Your task to perform on an android device: delete location history Image 0: 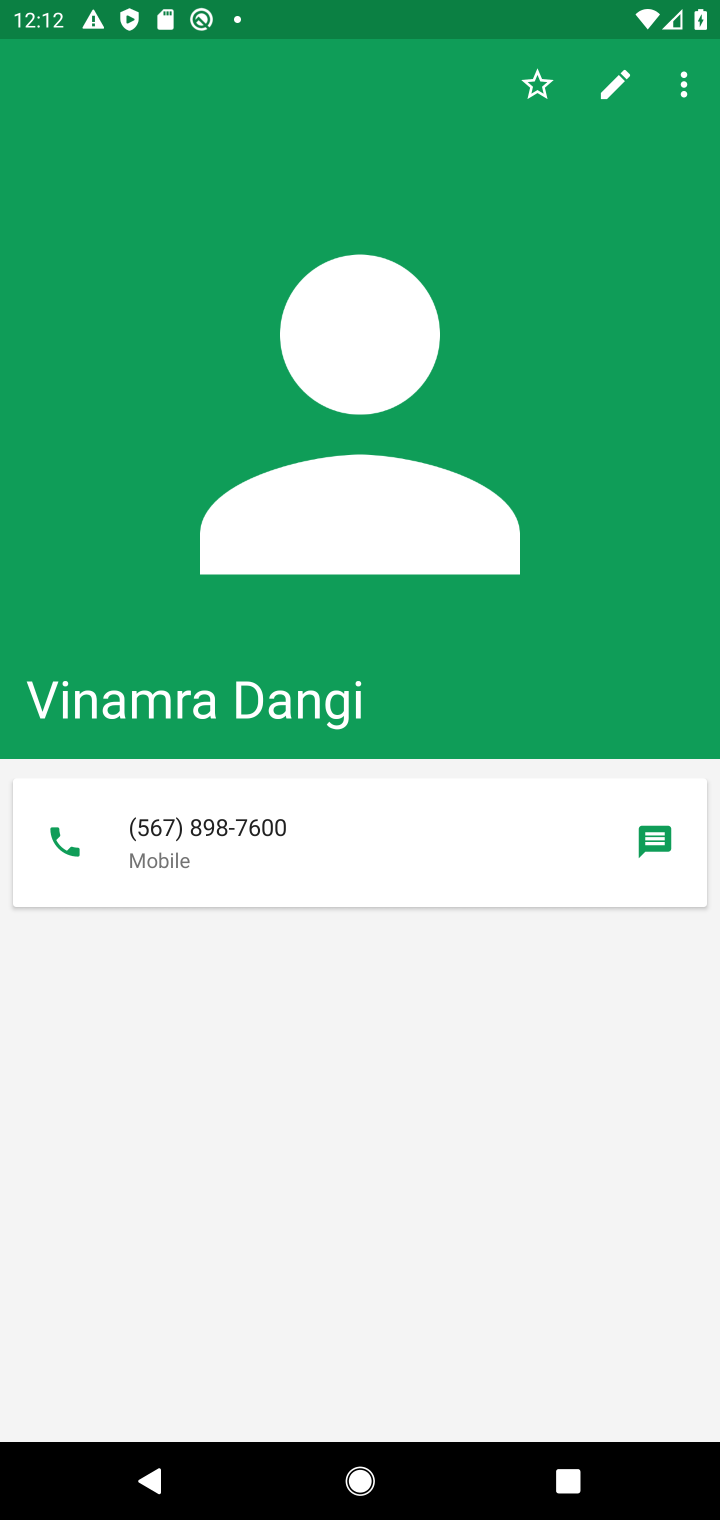
Step 0: press home button
Your task to perform on an android device: delete location history Image 1: 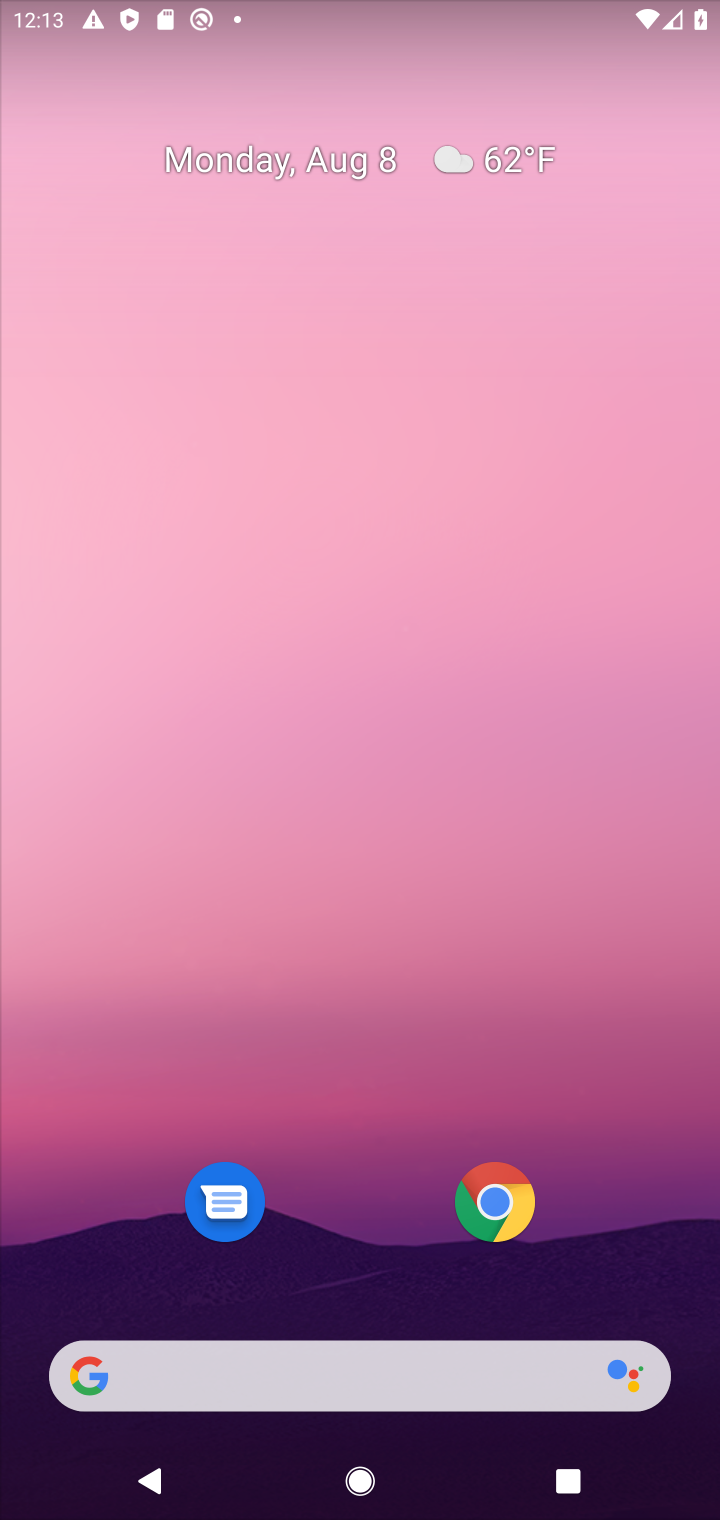
Step 1: drag from (326, 579) to (305, 75)
Your task to perform on an android device: delete location history Image 2: 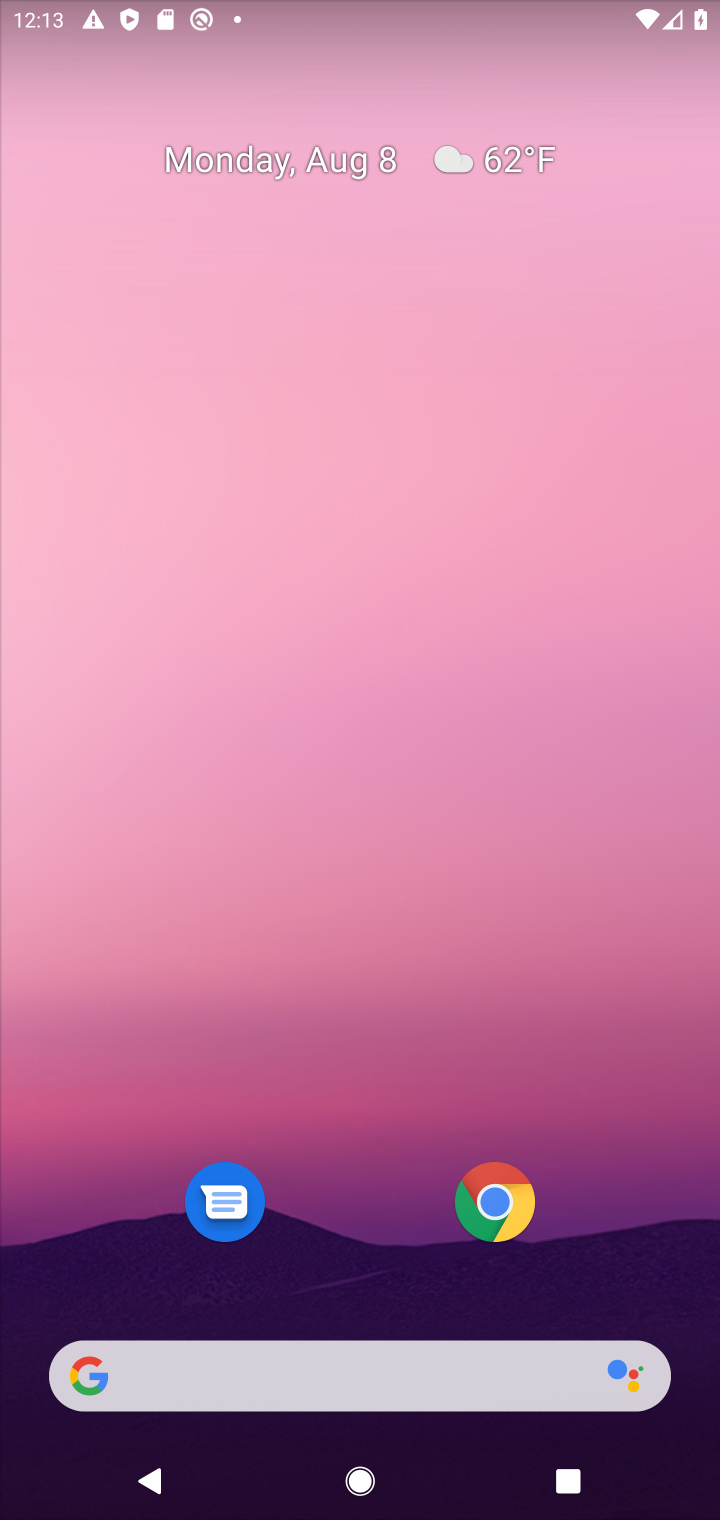
Step 2: drag from (352, 669) to (415, 199)
Your task to perform on an android device: delete location history Image 3: 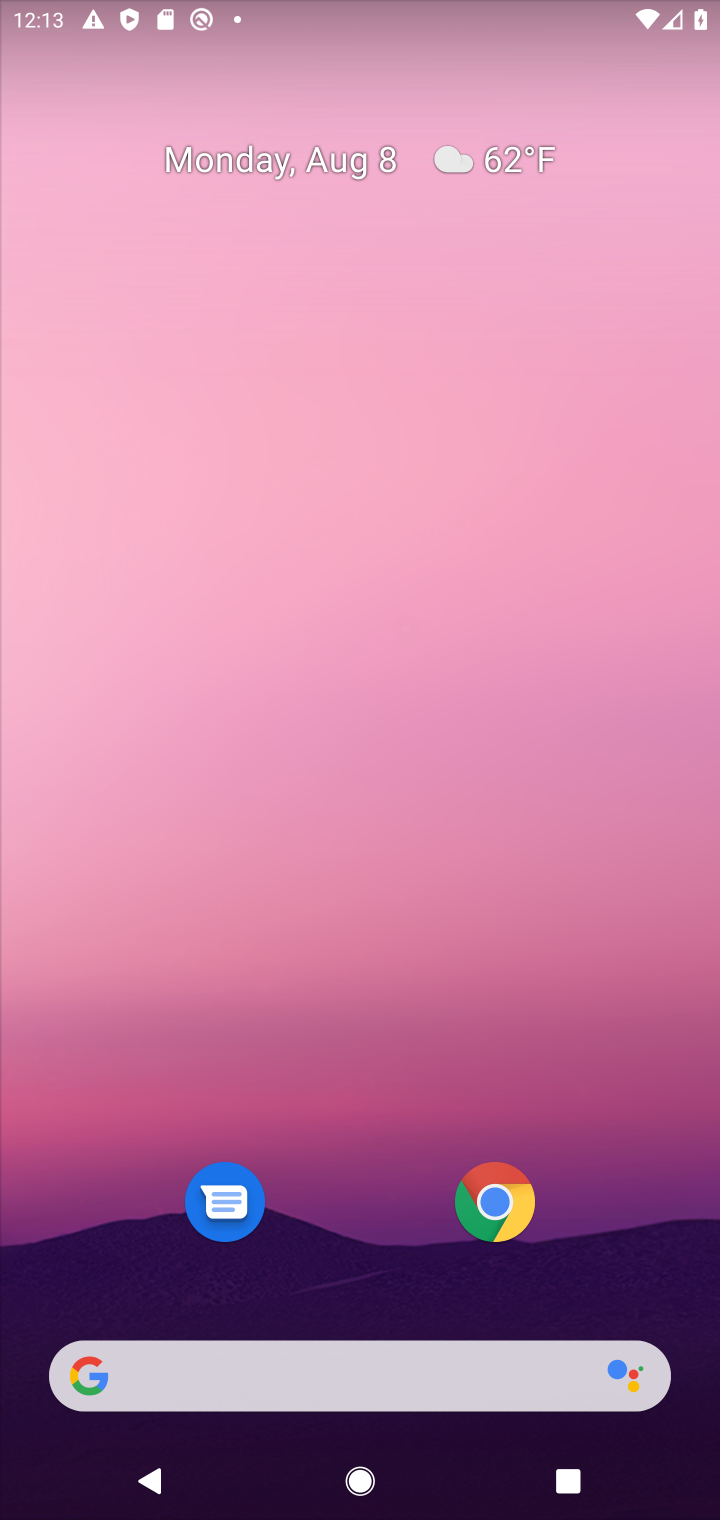
Step 3: drag from (338, 1215) to (532, 171)
Your task to perform on an android device: delete location history Image 4: 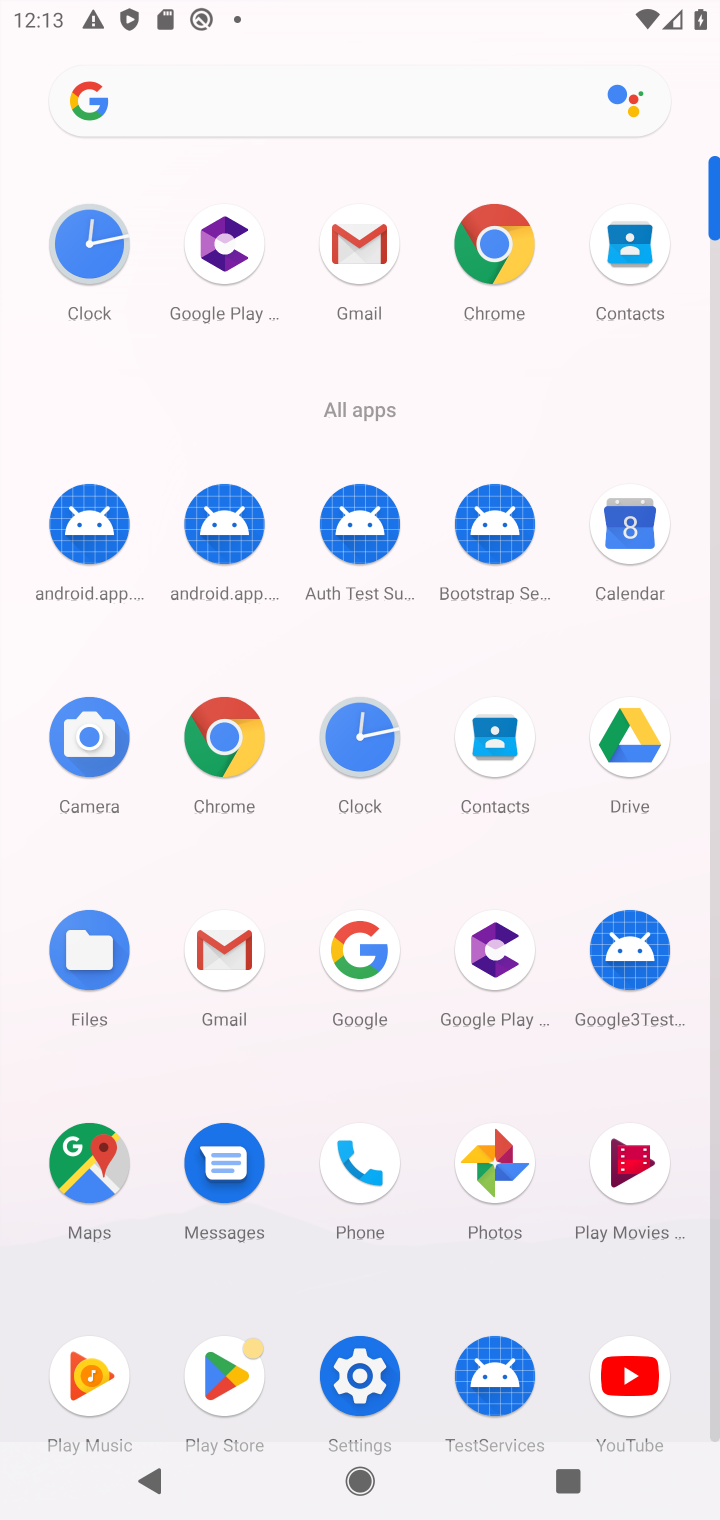
Step 4: click (361, 1378)
Your task to perform on an android device: delete location history Image 5: 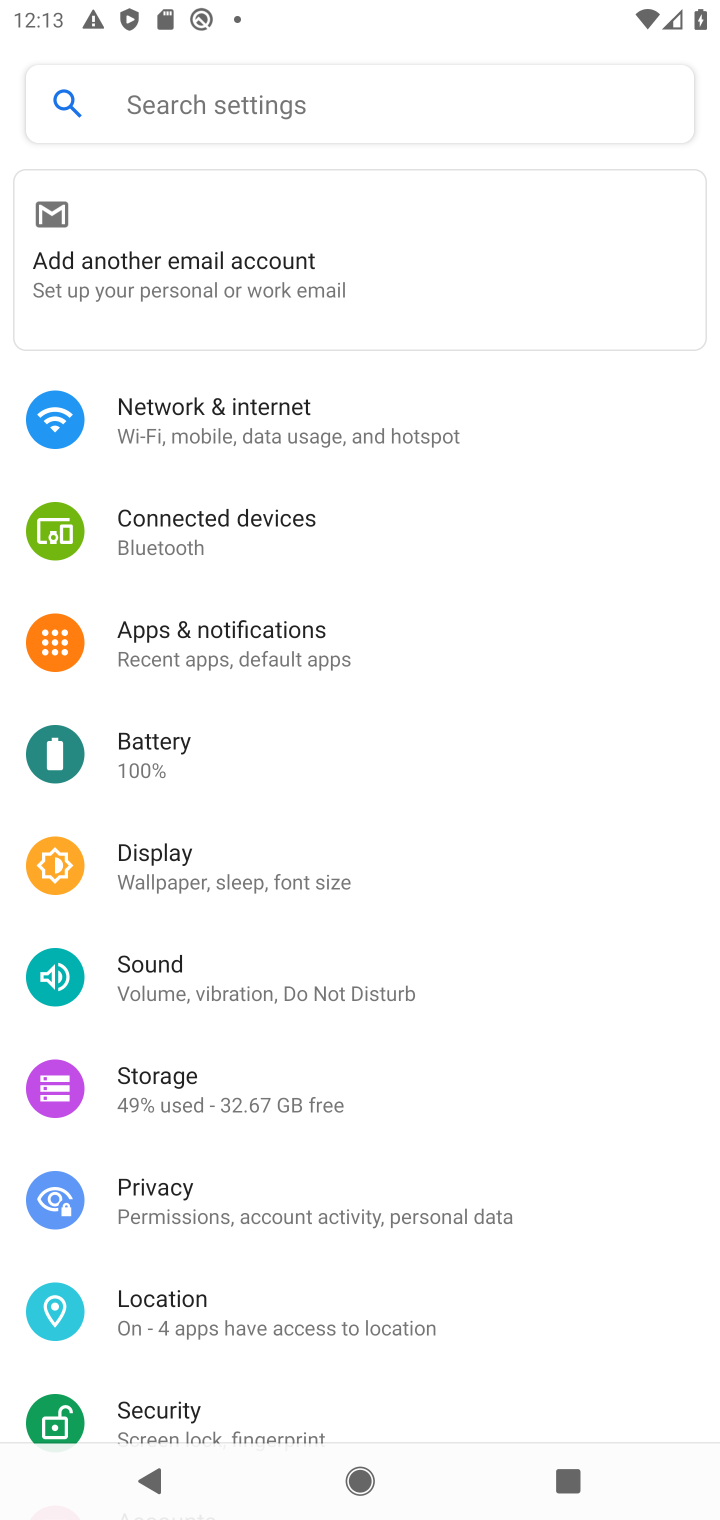
Step 5: click (182, 1334)
Your task to perform on an android device: delete location history Image 6: 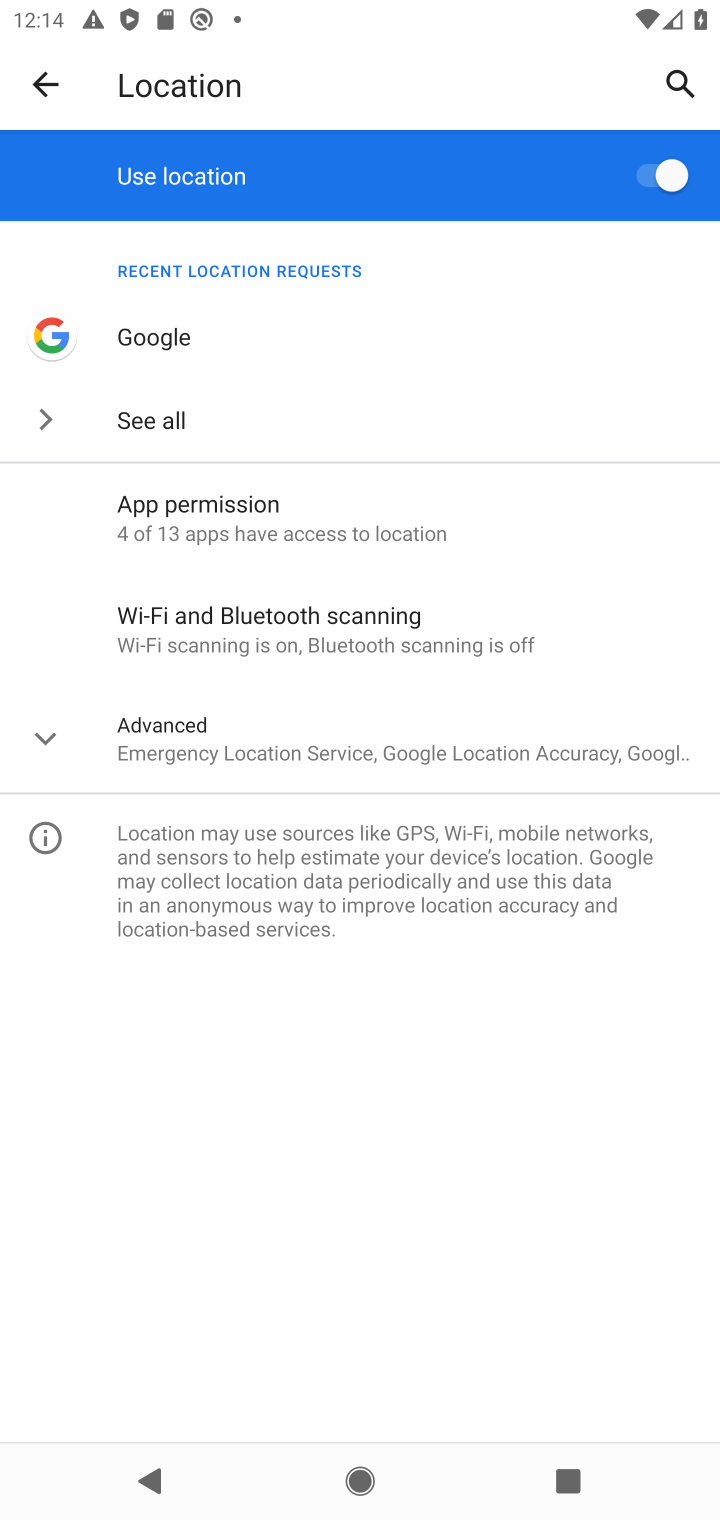
Step 6: click (214, 745)
Your task to perform on an android device: delete location history Image 7: 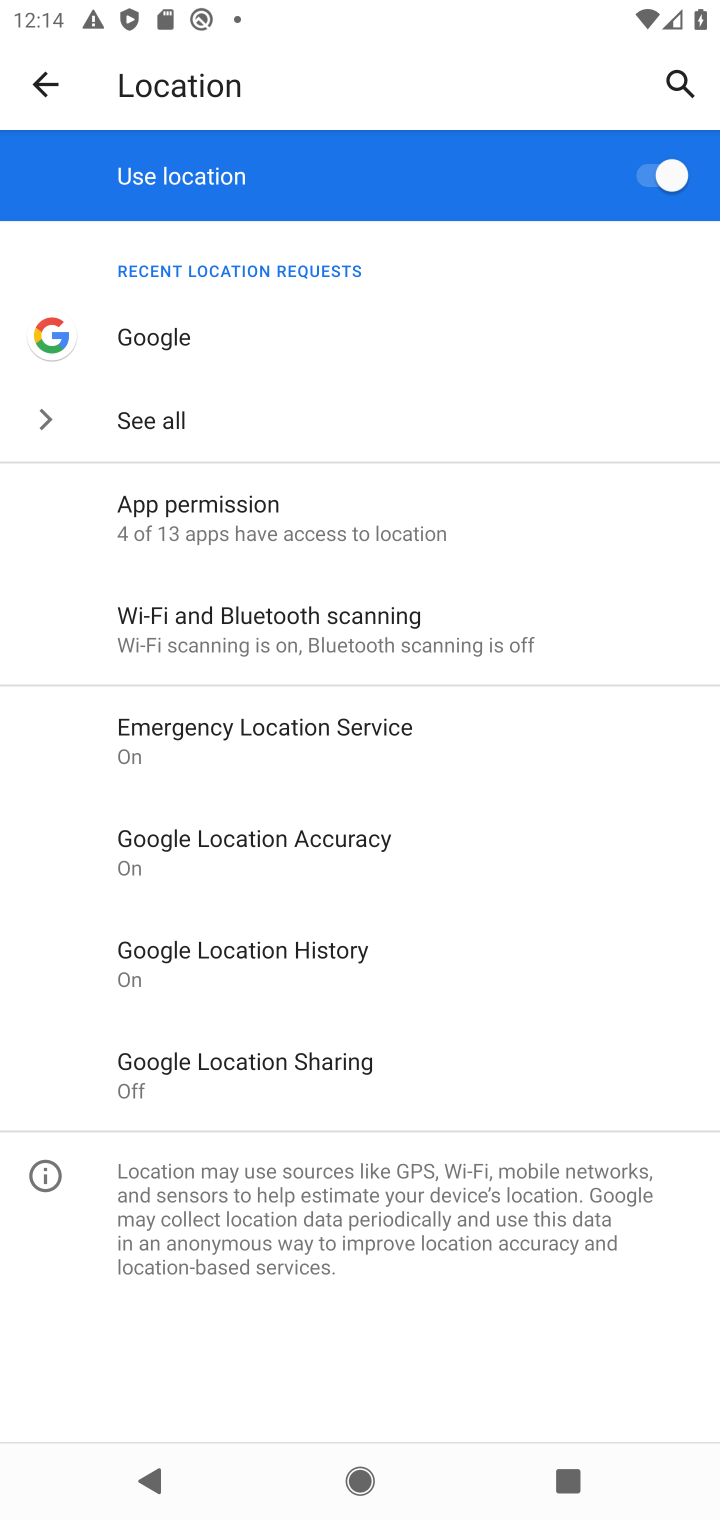
Step 7: click (200, 956)
Your task to perform on an android device: delete location history Image 8: 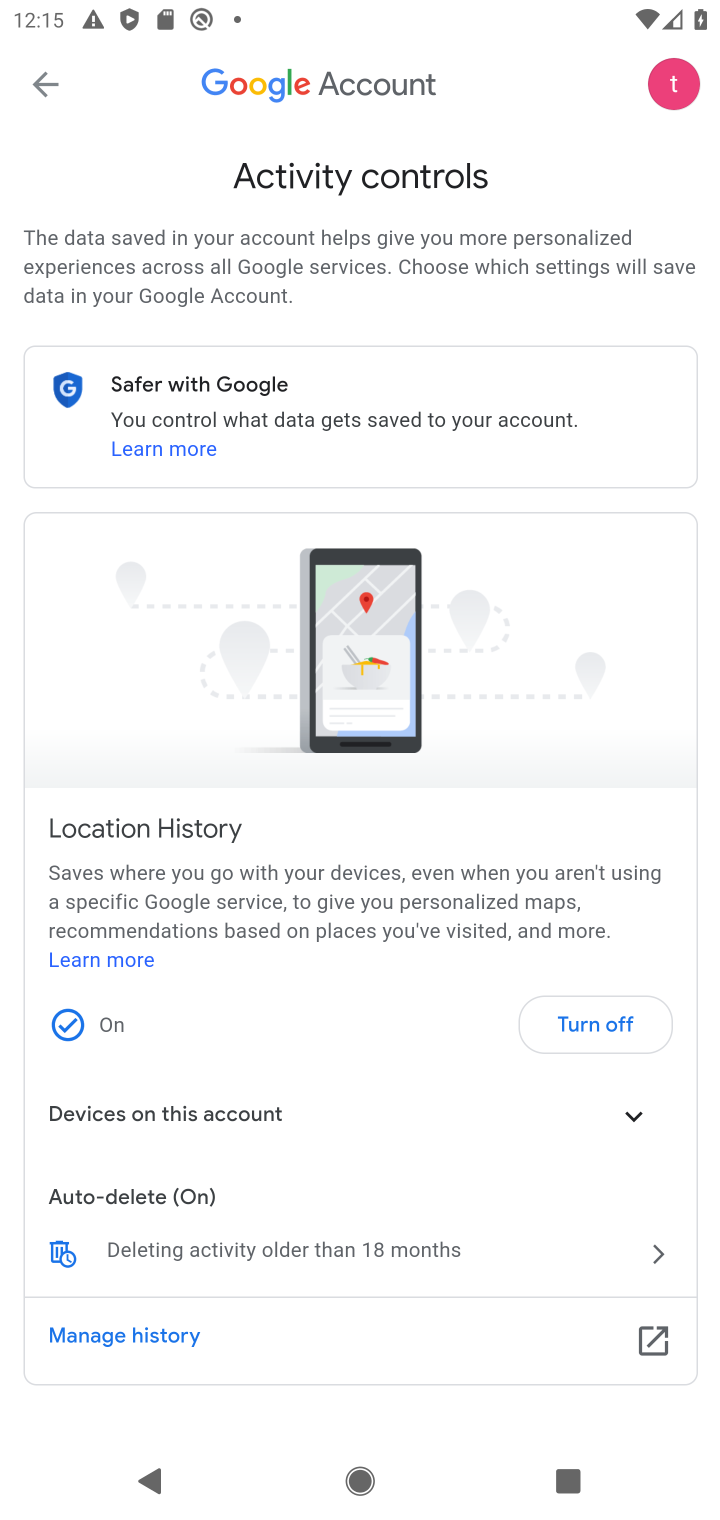
Step 8: click (159, 1321)
Your task to perform on an android device: delete location history Image 9: 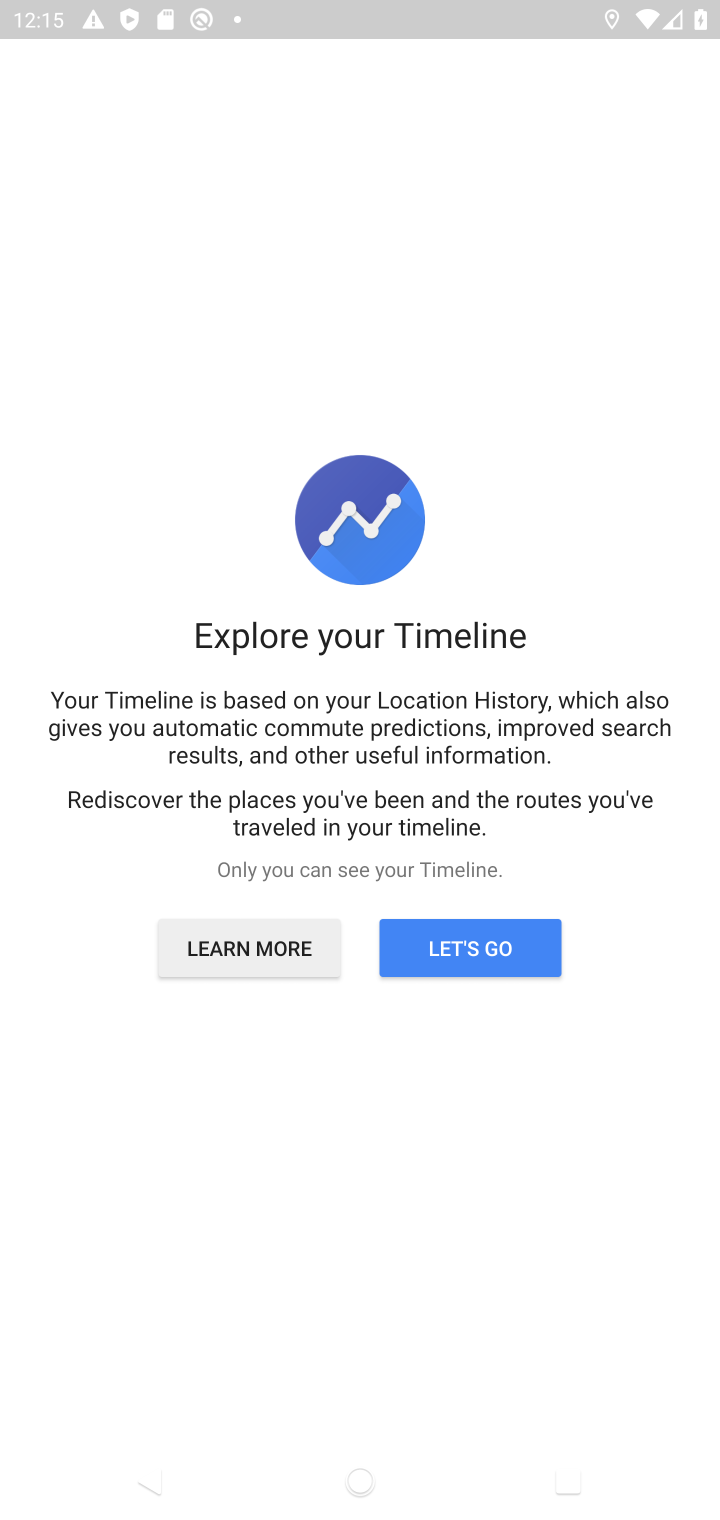
Step 9: click (487, 963)
Your task to perform on an android device: delete location history Image 10: 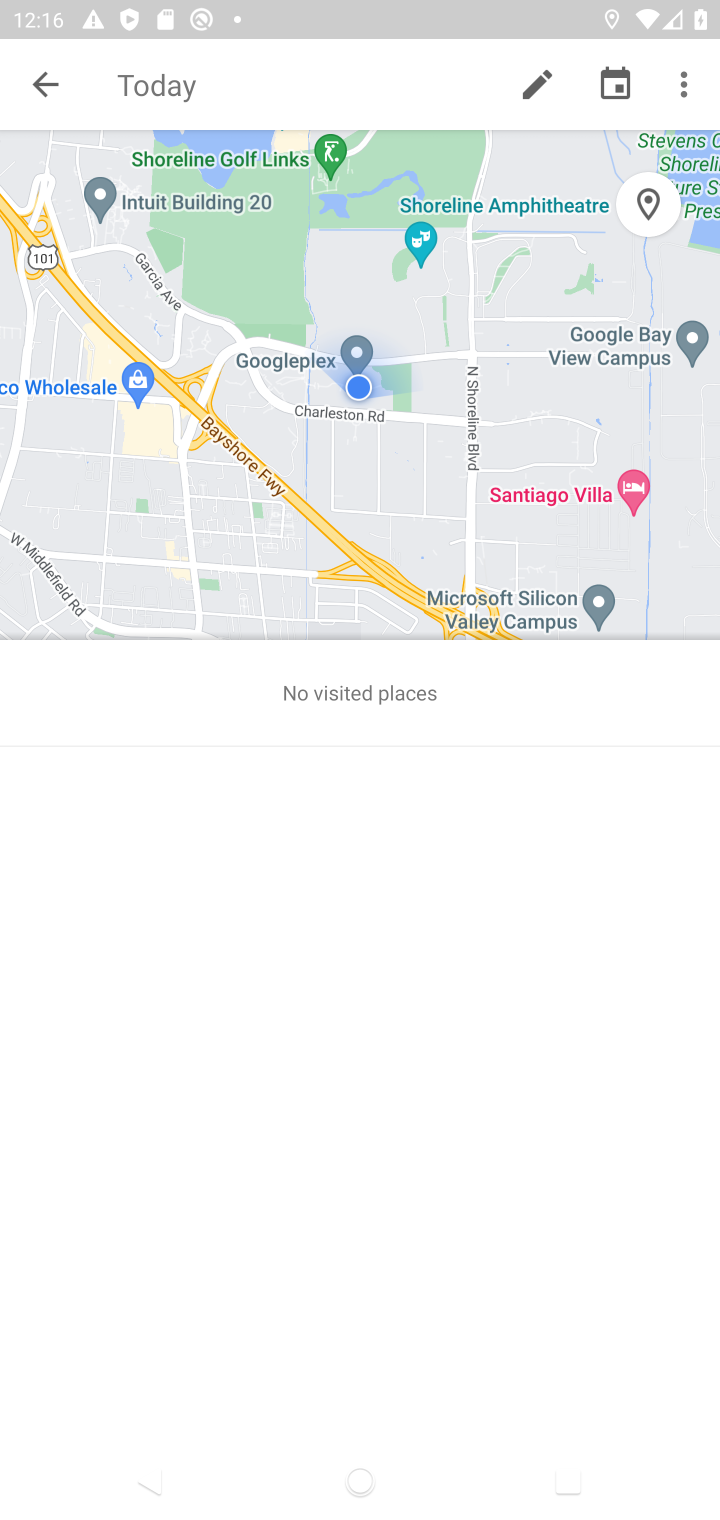
Step 10: click (686, 85)
Your task to perform on an android device: delete location history Image 11: 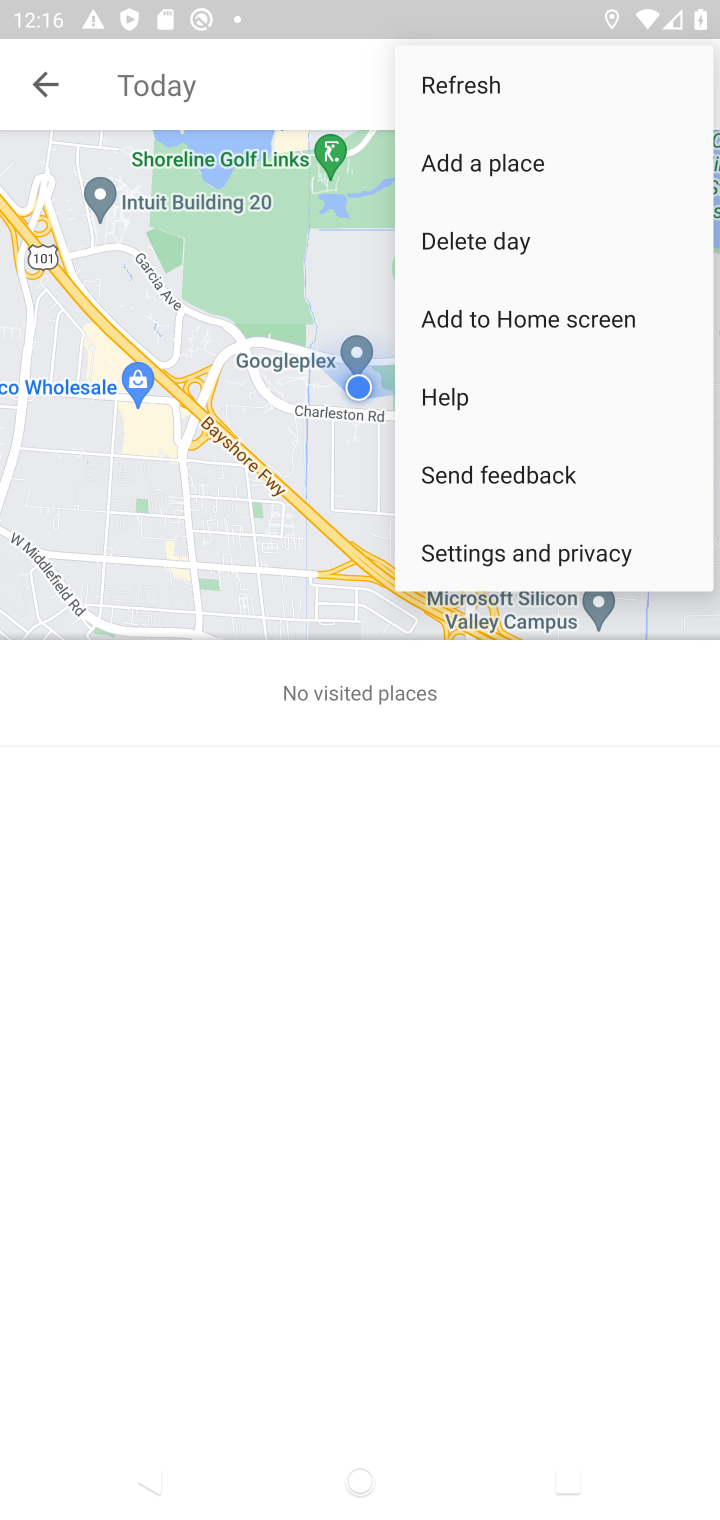
Step 11: click (488, 562)
Your task to perform on an android device: delete location history Image 12: 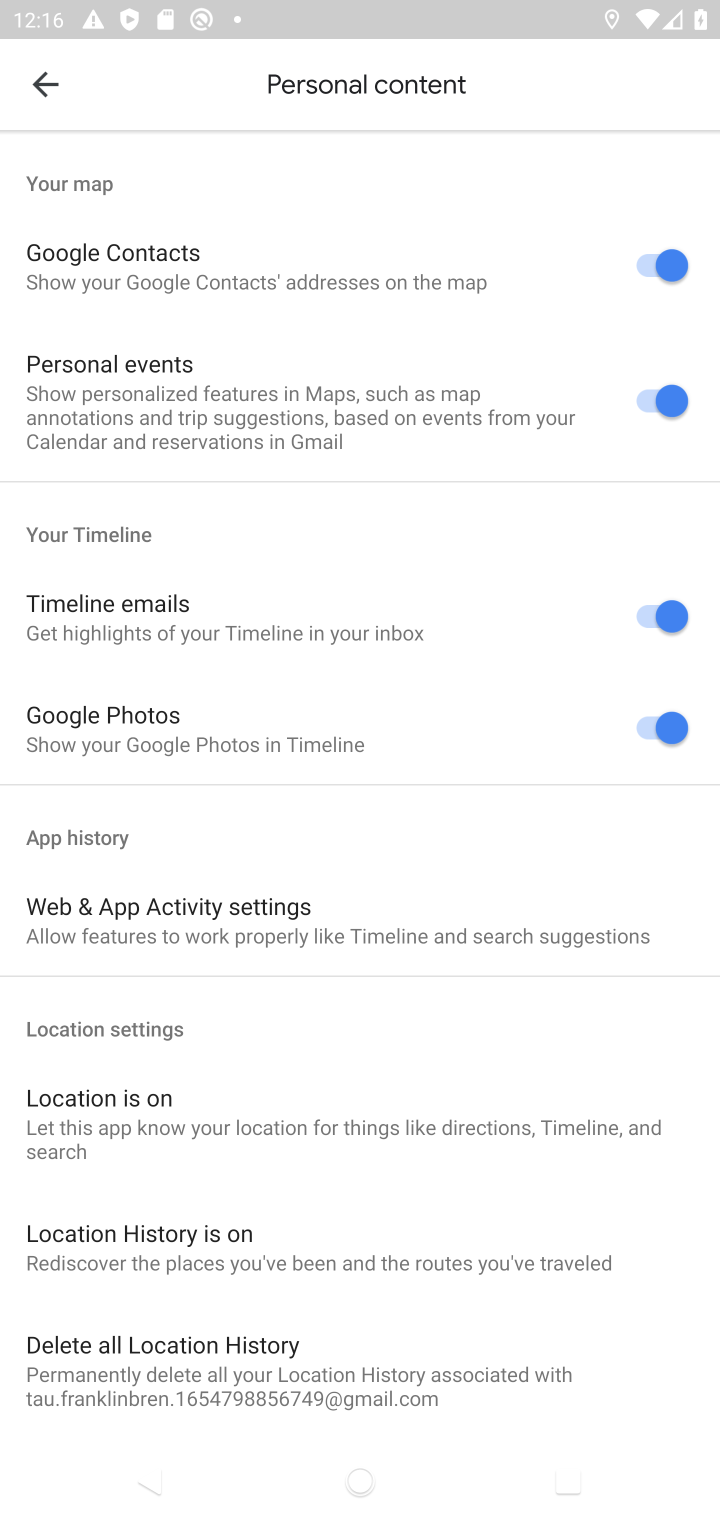
Step 12: click (201, 1402)
Your task to perform on an android device: delete location history Image 13: 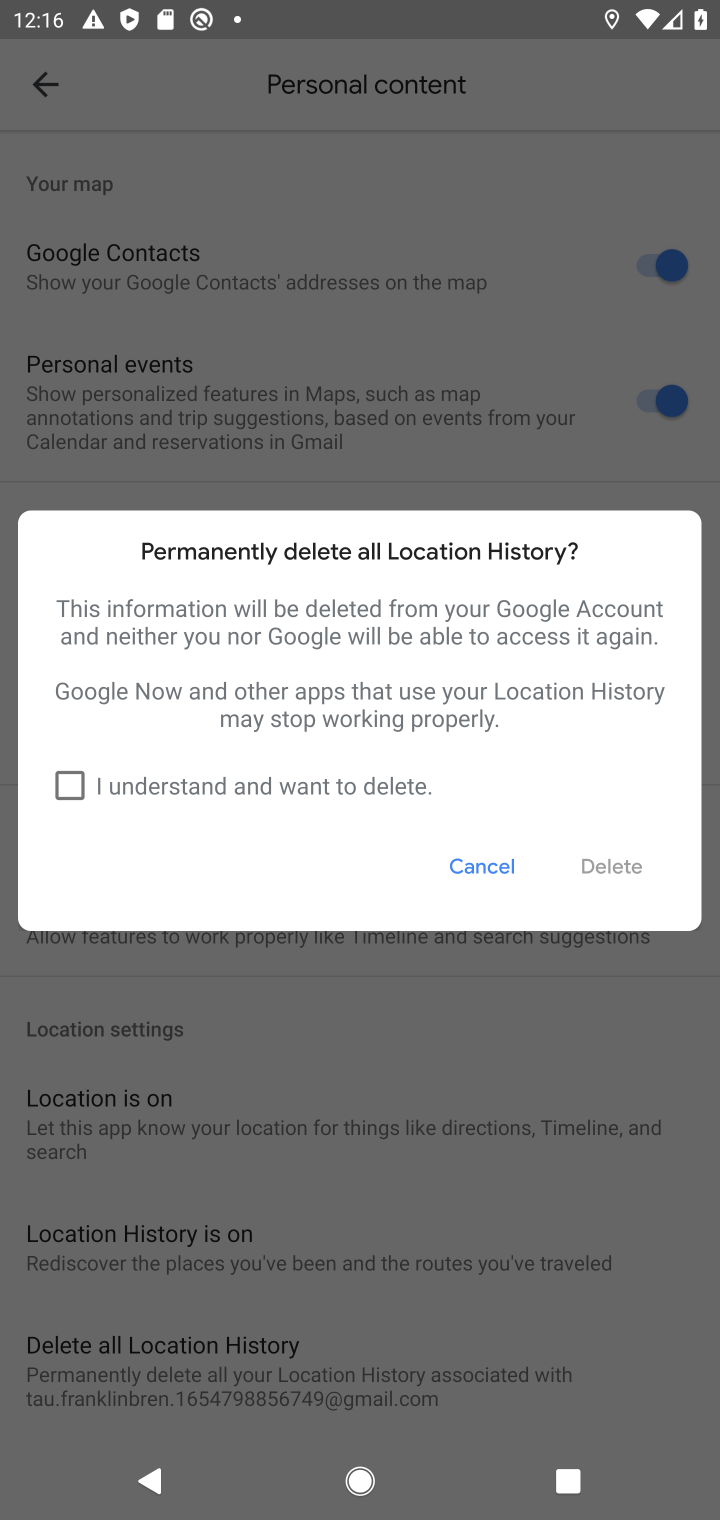
Step 13: click (75, 788)
Your task to perform on an android device: delete location history Image 14: 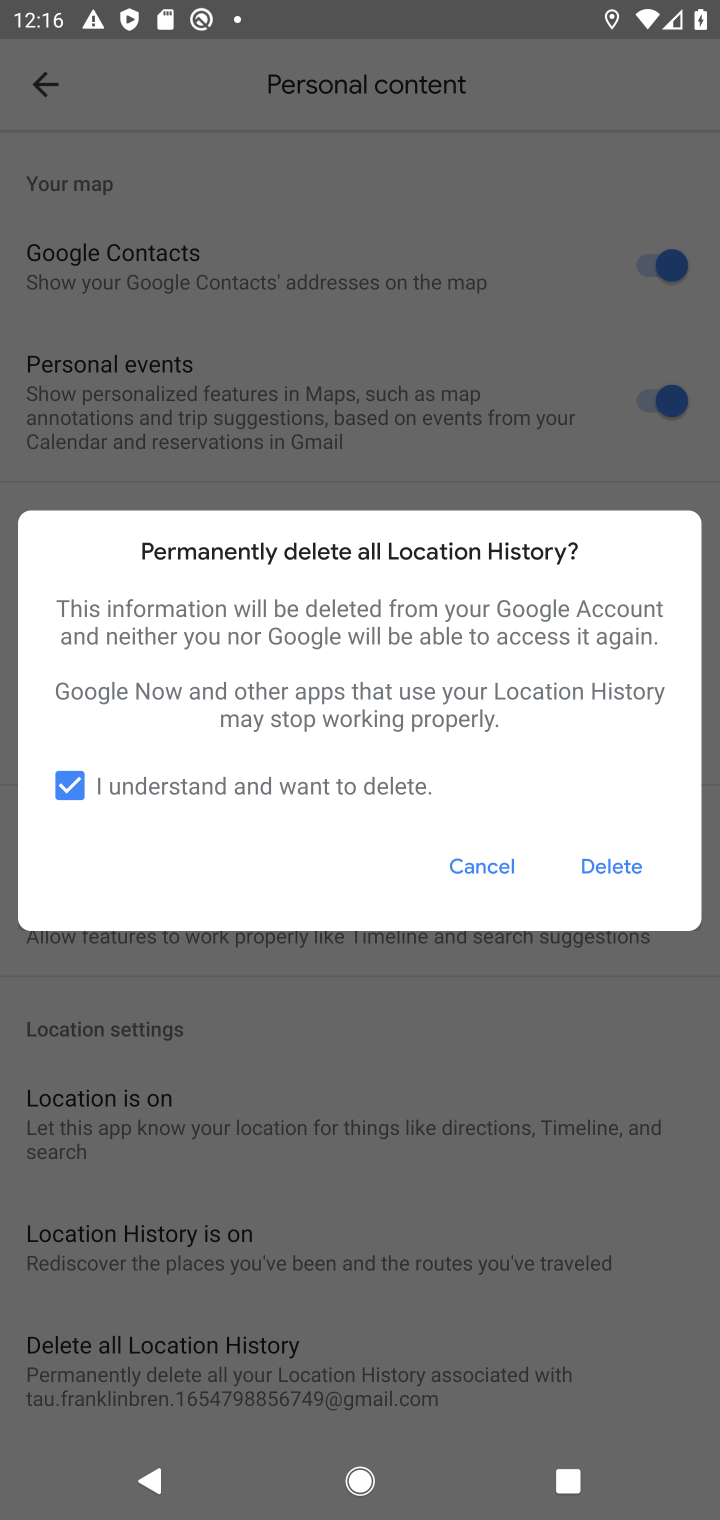
Step 14: click (622, 868)
Your task to perform on an android device: delete location history Image 15: 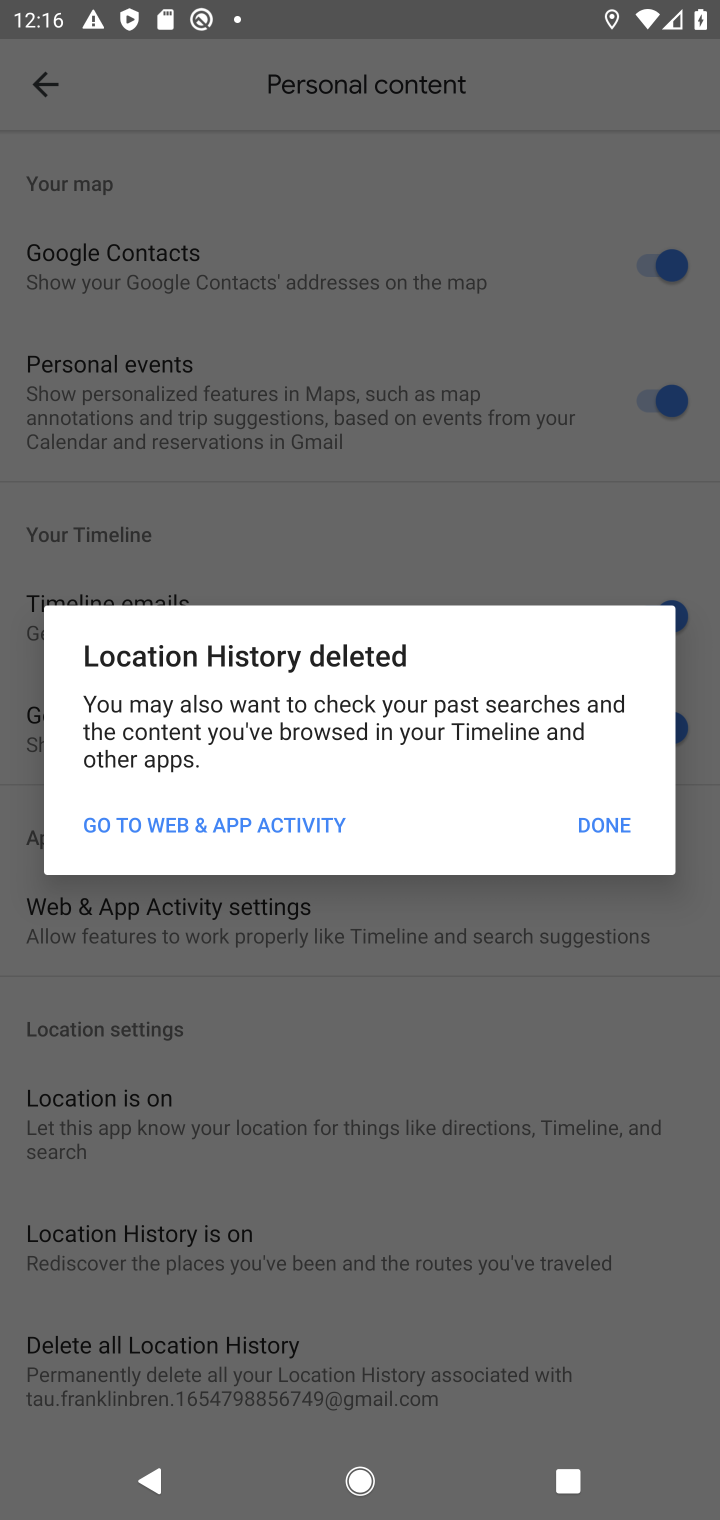
Step 15: click (606, 821)
Your task to perform on an android device: delete location history Image 16: 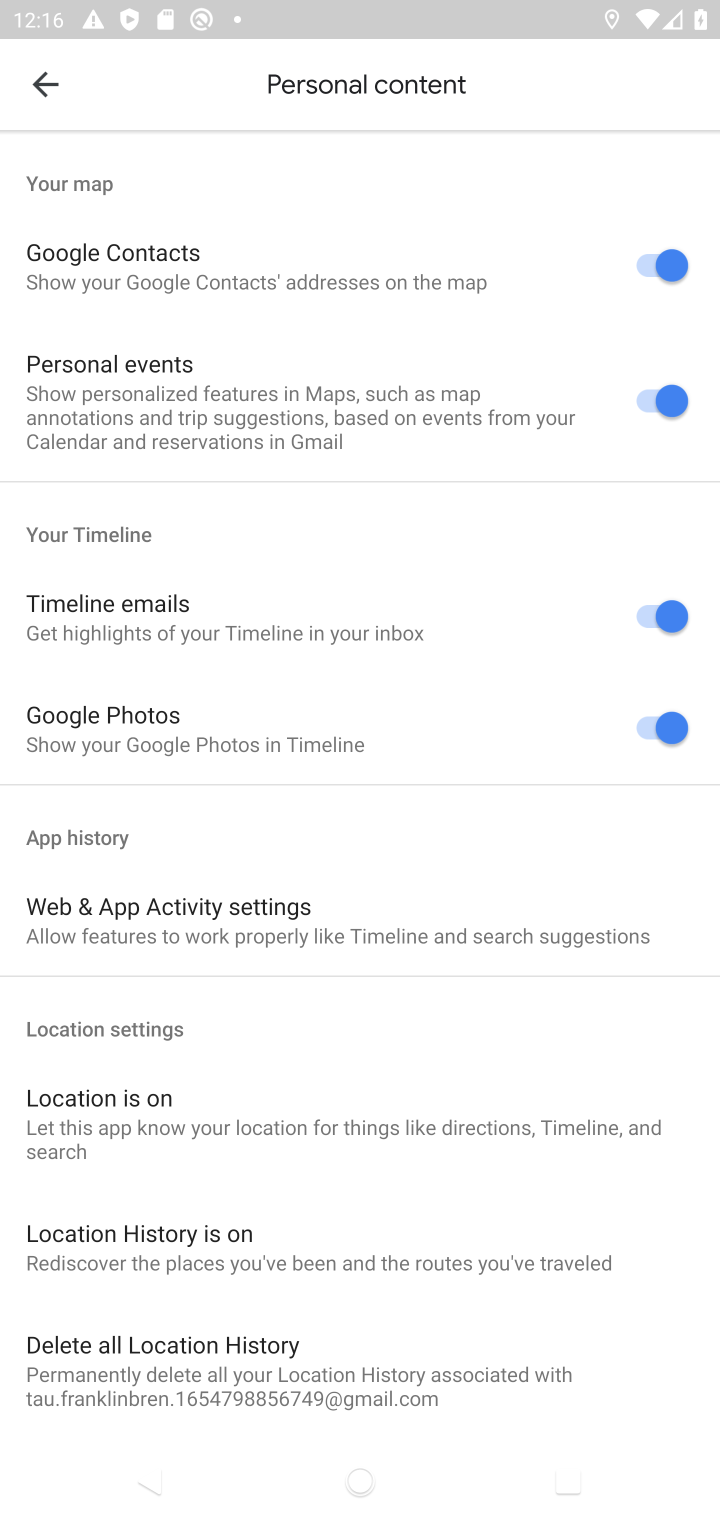
Step 16: task complete